Your task to perform on an android device: Open Yahoo.com Image 0: 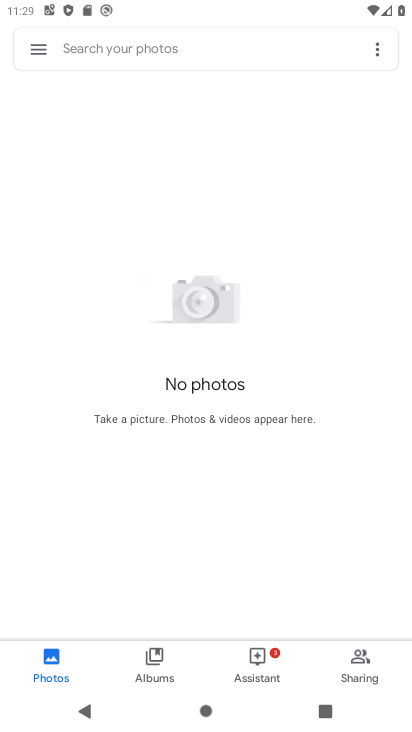
Step 0: press home button
Your task to perform on an android device: Open Yahoo.com Image 1: 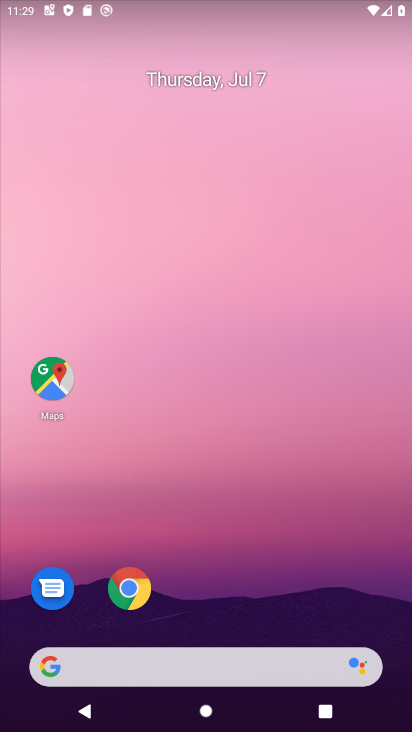
Step 1: click (135, 582)
Your task to perform on an android device: Open Yahoo.com Image 2: 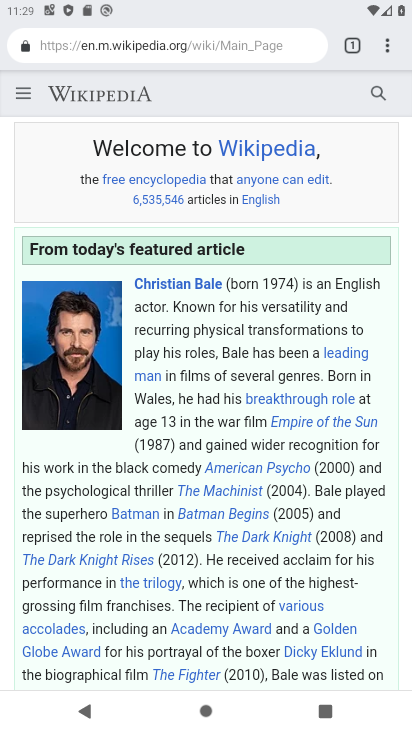
Step 2: click (158, 39)
Your task to perform on an android device: Open Yahoo.com Image 3: 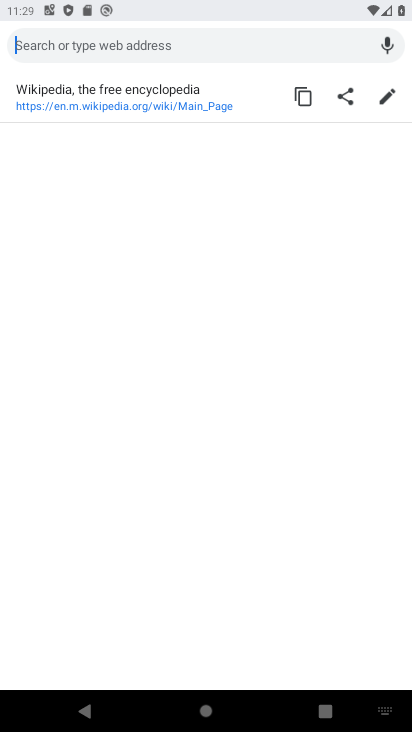
Step 3: type "yahoo.com"
Your task to perform on an android device: Open Yahoo.com Image 4: 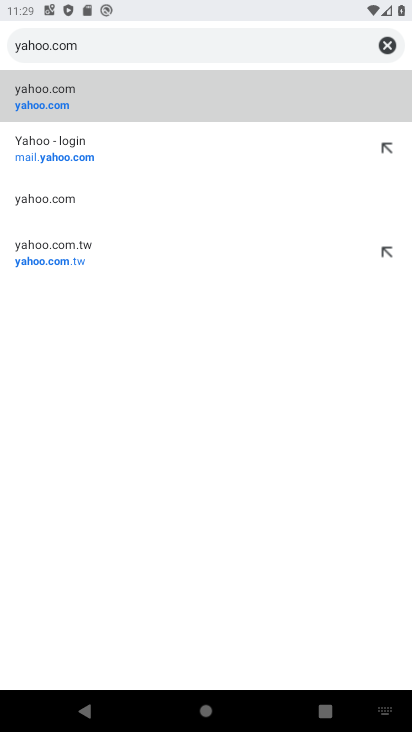
Step 4: click (217, 106)
Your task to perform on an android device: Open Yahoo.com Image 5: 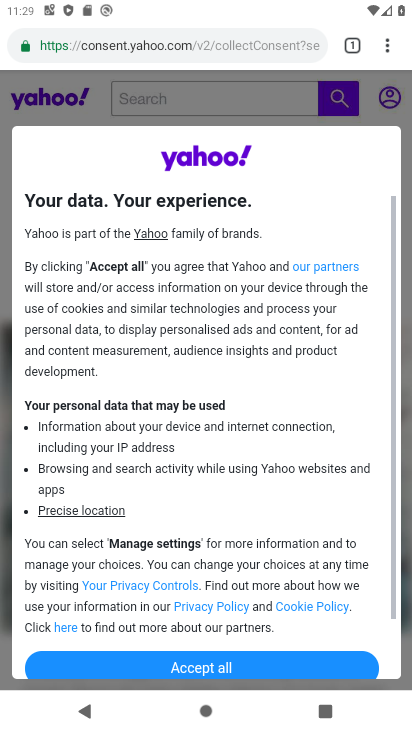
Step 5: task complete